Your task to perform on an android device: open a bookmark in the chrome app Image 0: 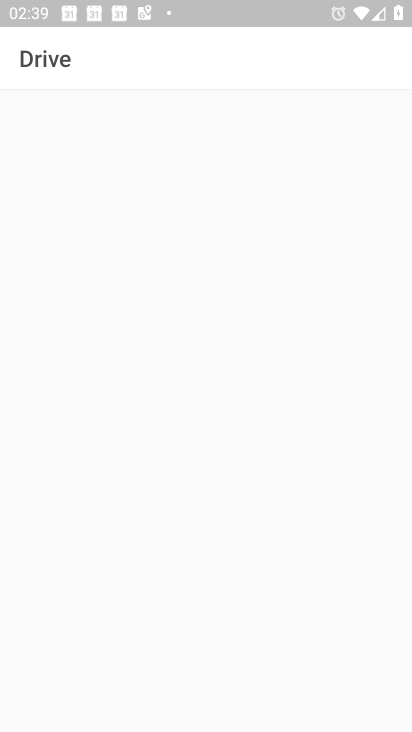
Step 0: drag from (206, 729) to (242, 157)
Your task to perform on an android device: open a bookmark in the chrome app Image 1: 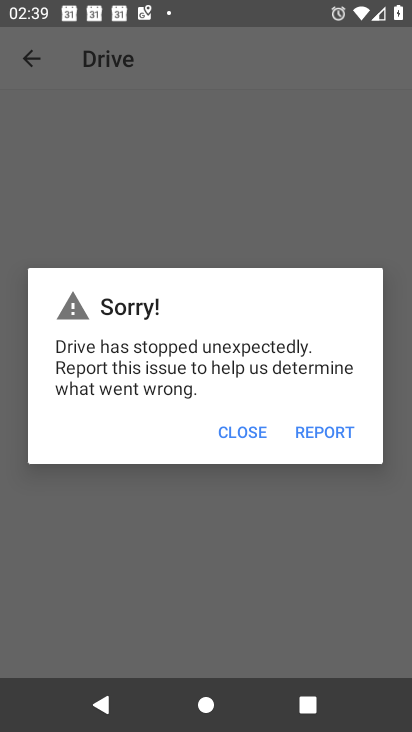
Step 1: press home button
Your task to perform on an android device: open a bookmark in the chrome app Image 2: 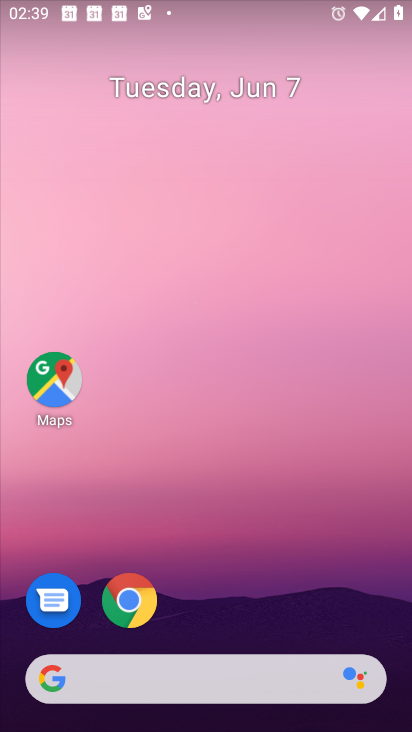
Step 2: click (127, 602)
Your task to perform on an android device: open a bookmark in the chrome app Image 3: 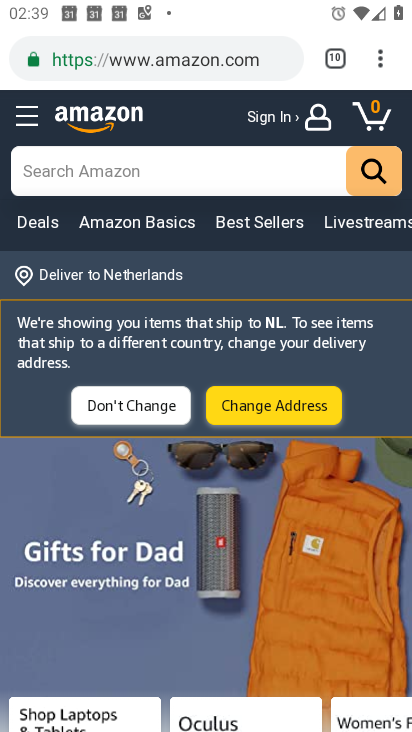
Step 3: click (380, 62)
Your task to perform on an android device: open a bookmark in the chrome app Image 4: 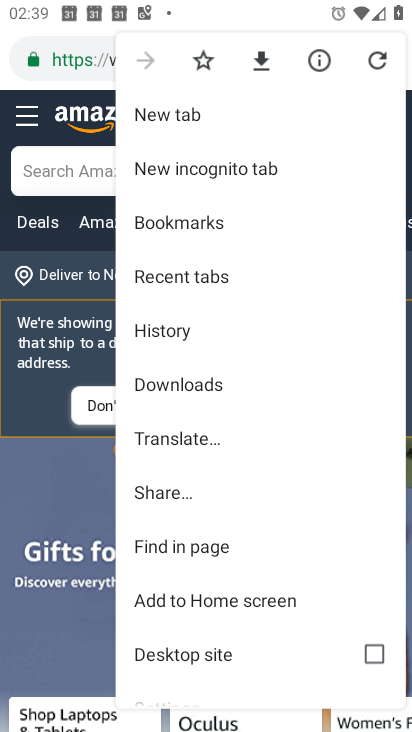
Step 4: click (177, 222)
Your task to perform on an android device: open a bookmark in the chrome app Image 5: 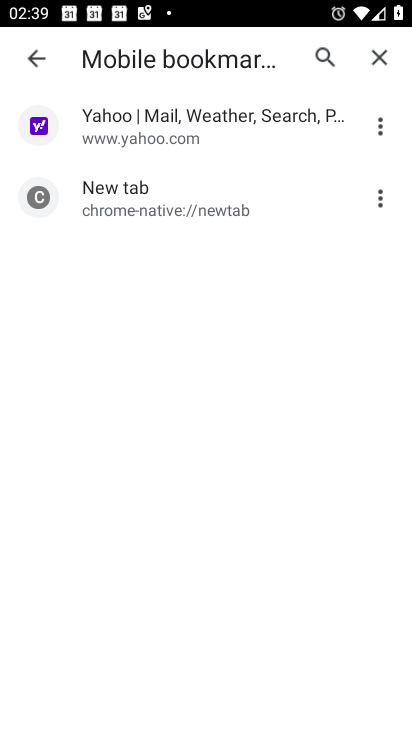
Step 5: click (144, 134)
Your task to perform on an android device: open a bookmark in the chrome app Image 6: 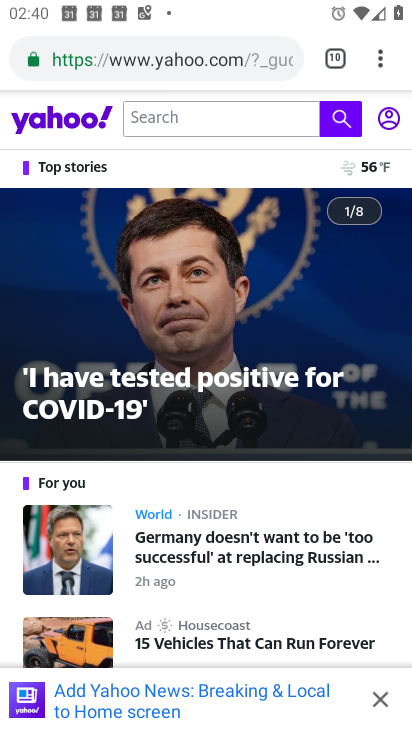
Step 6: task complete